Your task to perform on an android device: check google app version Image 0: 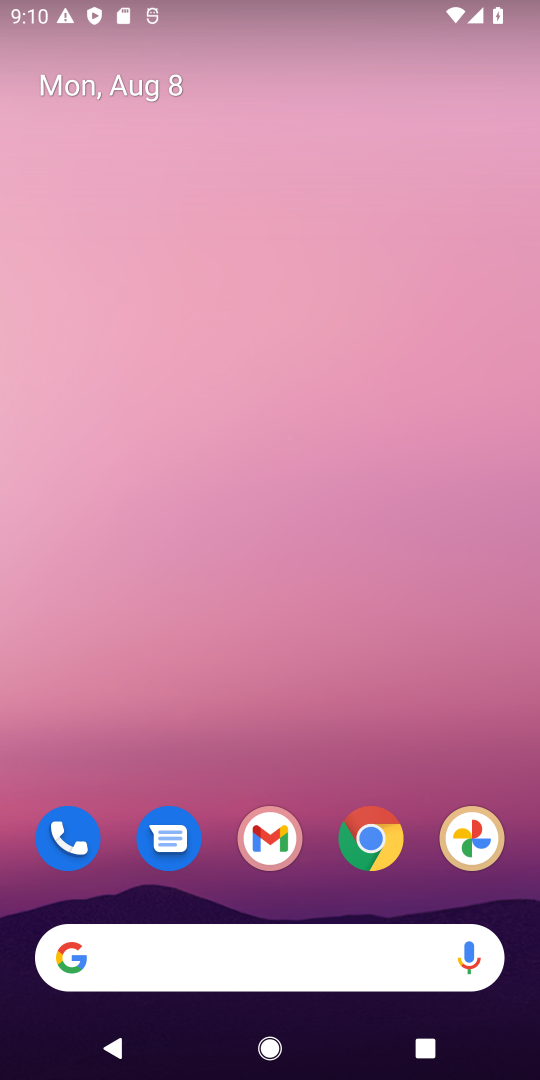
Step 0: press home button
Your task to perform on an android device: check google app version Image 1: 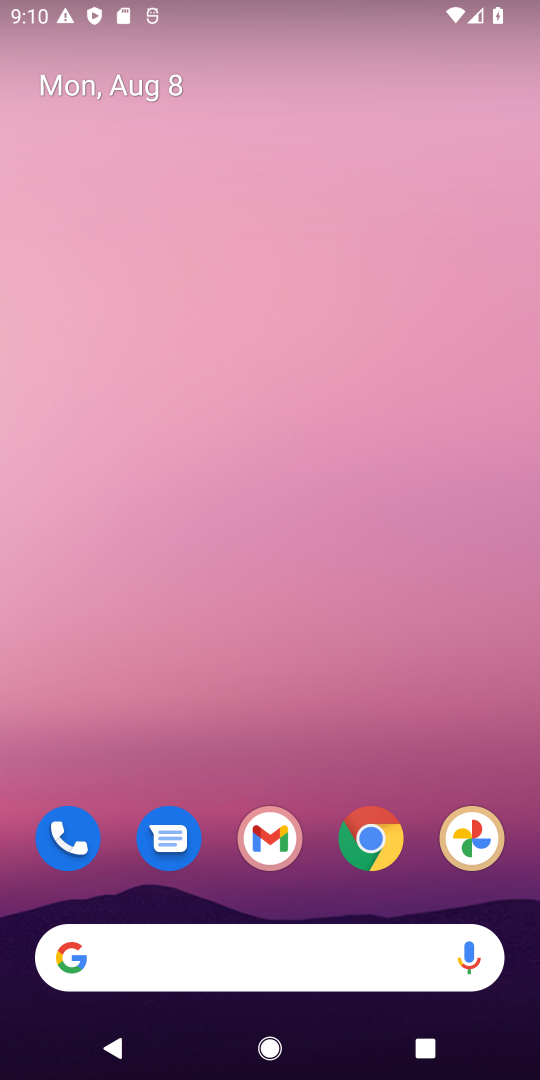
Step 1: drag from (297, 894) to (392, 93)
Your task to perform on an android device: check google app version Image 2: 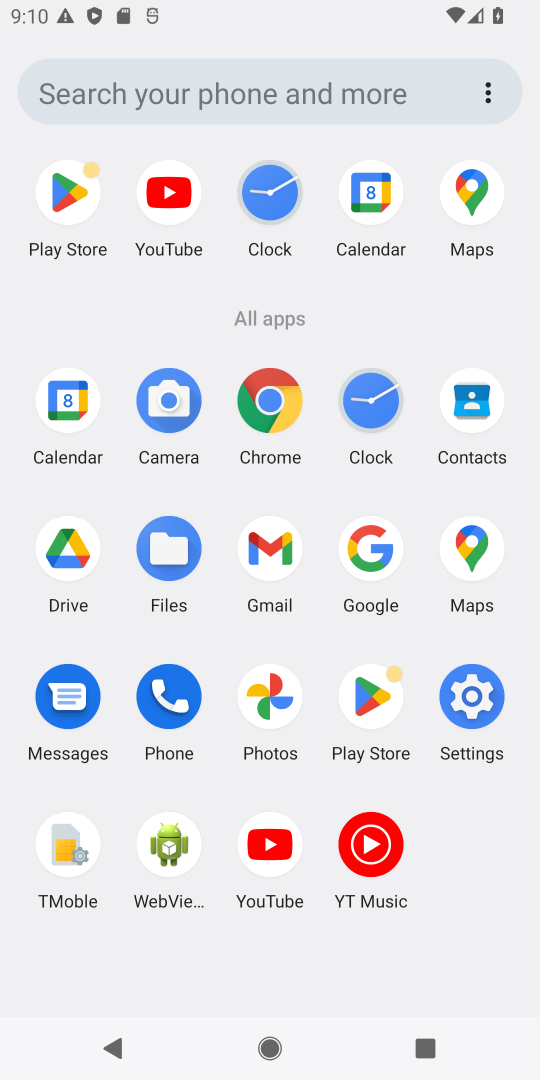
Step 2: click (360, 559)
Your task to perform on an android device: check google app version Image 3: 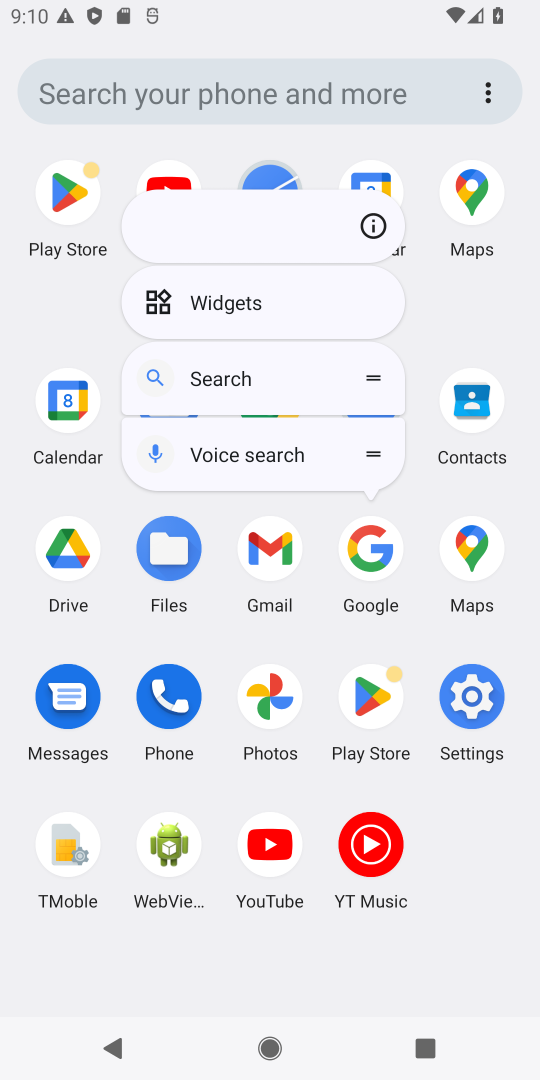
Step 3: click (371, 229)
Your task to perform on an android device: check google app version Image 4: 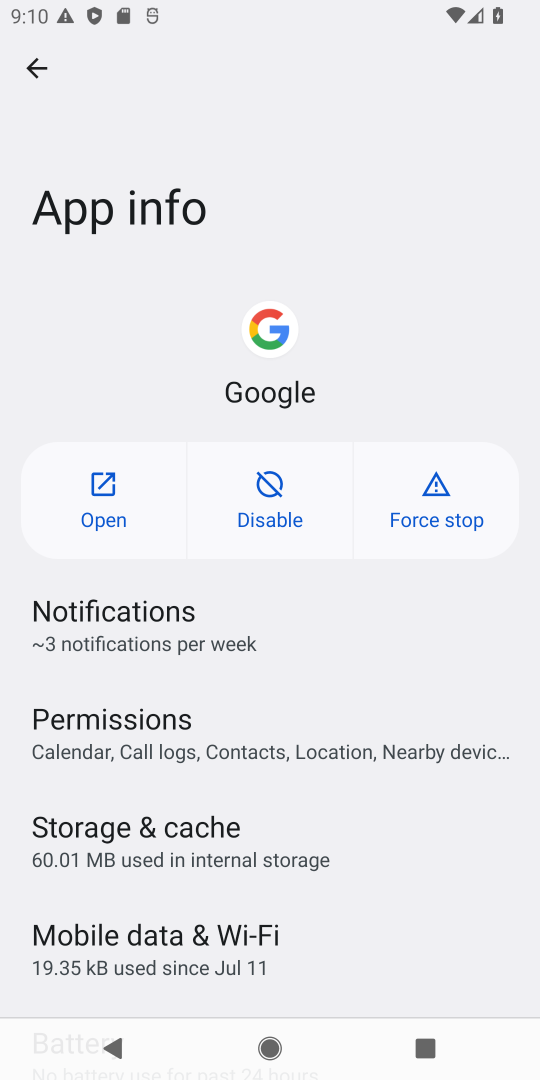
Step 4: task complete